Your task to perform on an android device: Go to sound settings Image 0: 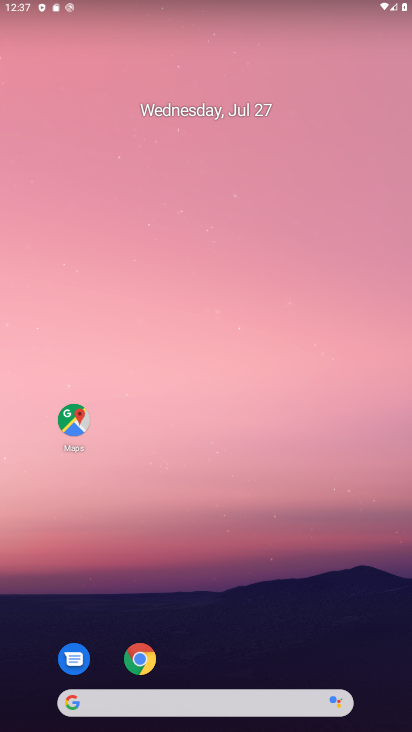
Step 0: drag from (294, 596) to (274, 38)
Your task to perform on an android device: Go to sound settings Image 1: 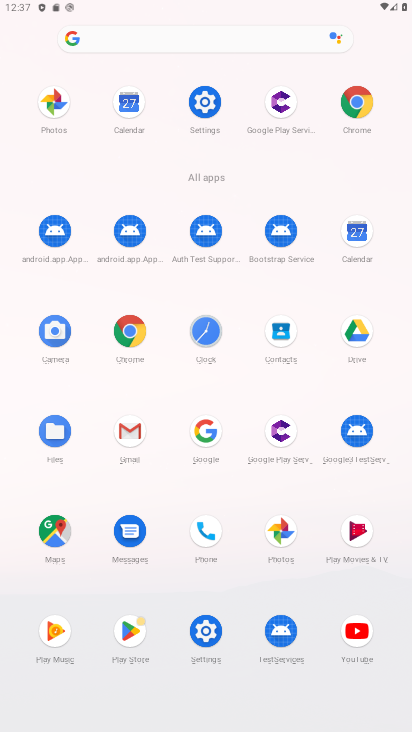
Step 1: click (214, 109)
Your task to perform on an android device: Go to sound settings Image 2: 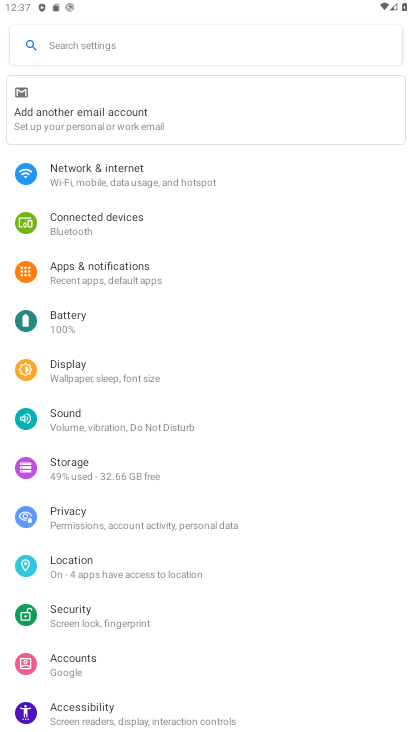
Step 2: click (157, 428)
Your task to perform on an android device: Go to sound settings Image 3: 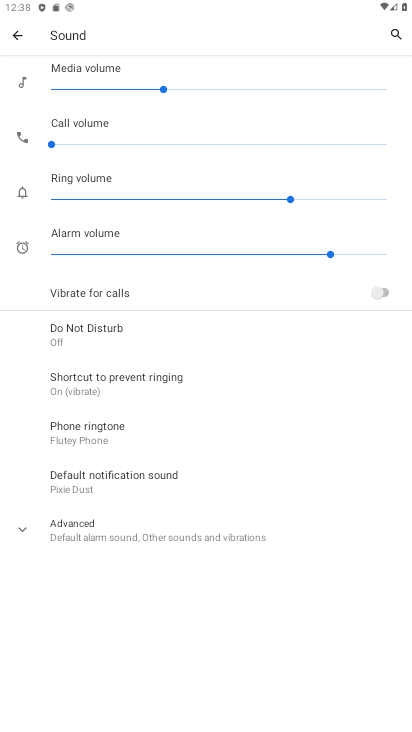
Step 3: task complete